Your task to perform on an android device: Check the news Image 0: 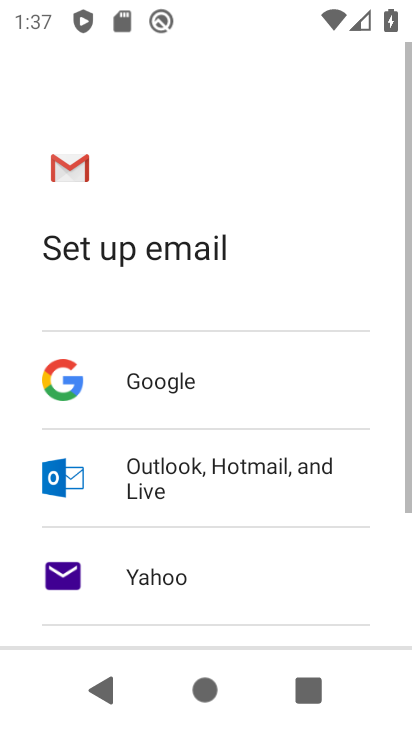
Step 0: press home button
Your task to perform on an android device: Check the news Image 1: 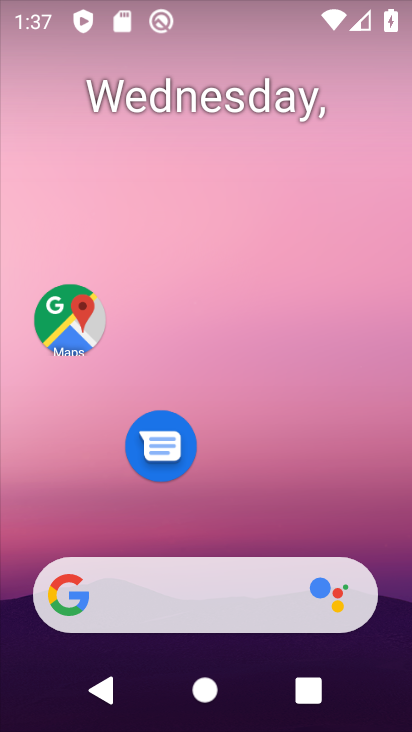
Step 1: drag from (234, 539) to (201, 42)
Your task to perform on an android device: Check the news Image 2: 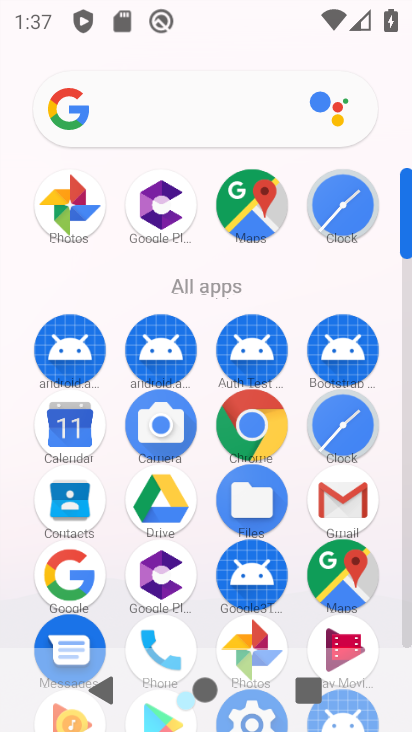
Step 2: click (405, 618)
Your task to perform on an android device: Check the news Image 3: 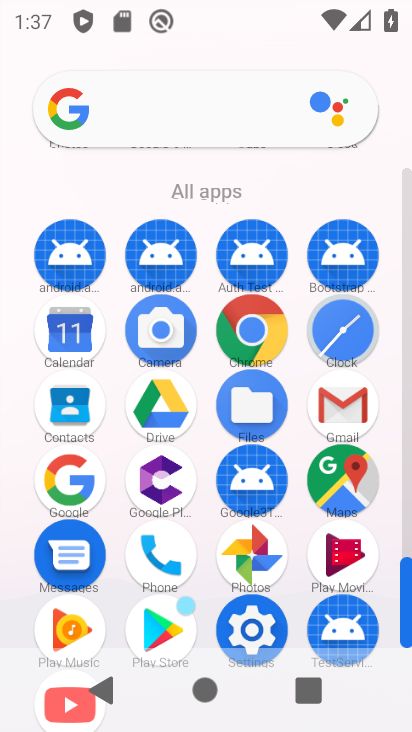
Step 3: click (255, 632)
Your task to perform on an android device: Check the news Image 4: 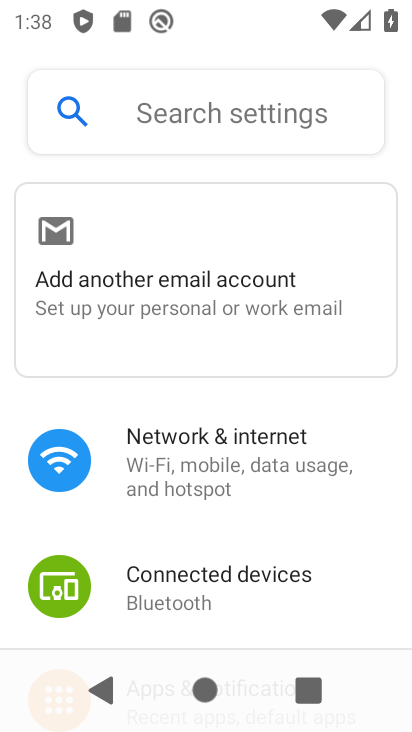
Step 4: press home button
Your task to perform on an android device: Check the news Image 5: 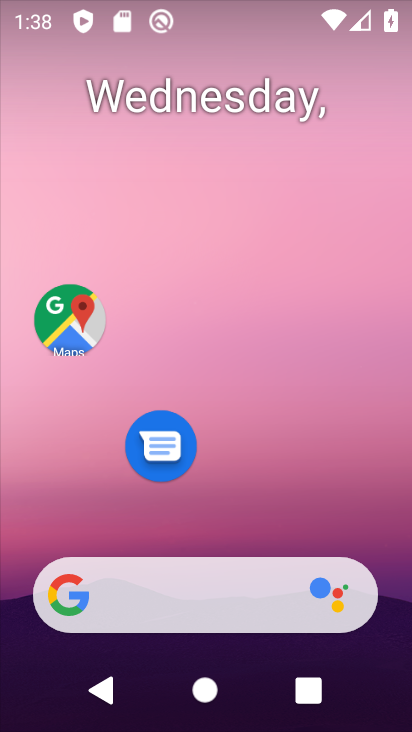
Step 5: drag from (336, 505) to (227, 12)
Your task to perform on an android device: Check the news Image 6: 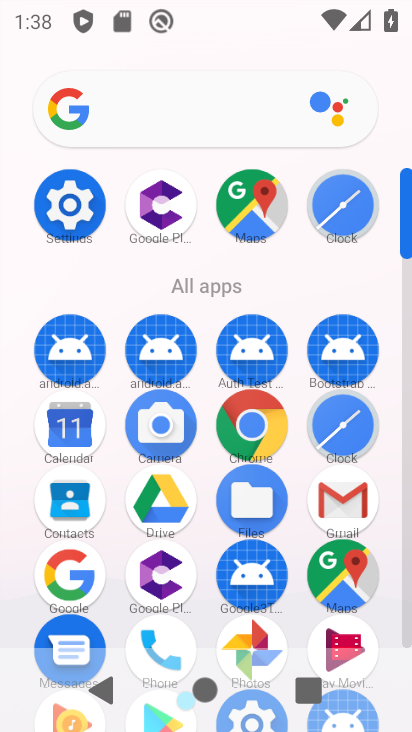
Step 6: click (274, 433)
Your task to perform on an android device: Check the news Image 7: 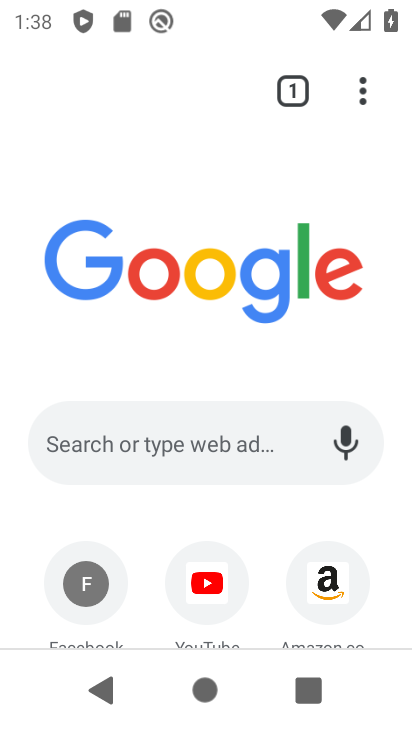
Step 7: task complete